Your task to perform on an android device: What's on my calendar today? Image 0: 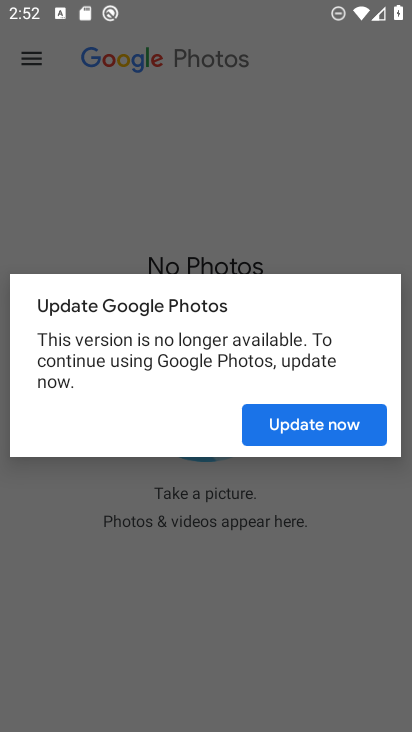
Step 0: press home button
Your task to perform on an android device: What's on my calendar today? Image 1: 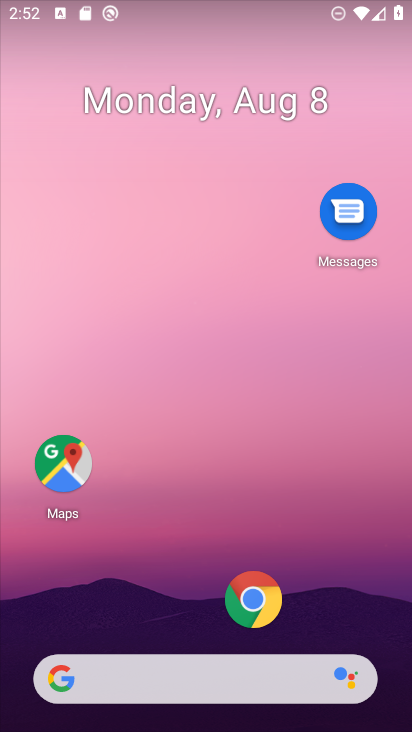
Step 1: drag from (109, 595) to (0, 101)
Your task to perform on an android device: What's on my calendar today? Image 2: 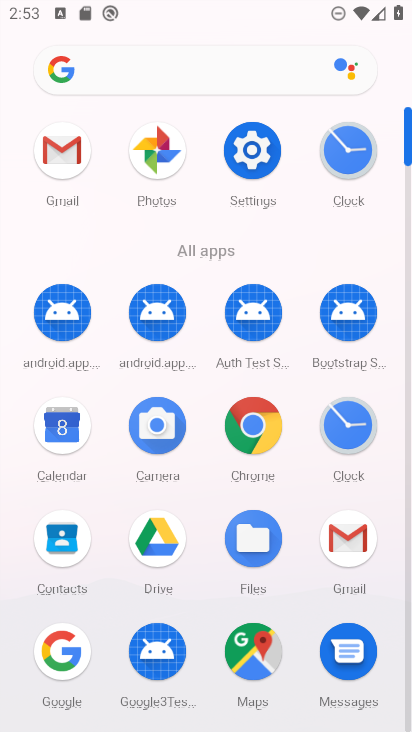
Step 2: click (68, 440)
Your task to perform on an android device: What's on my calendar today? Image 3: 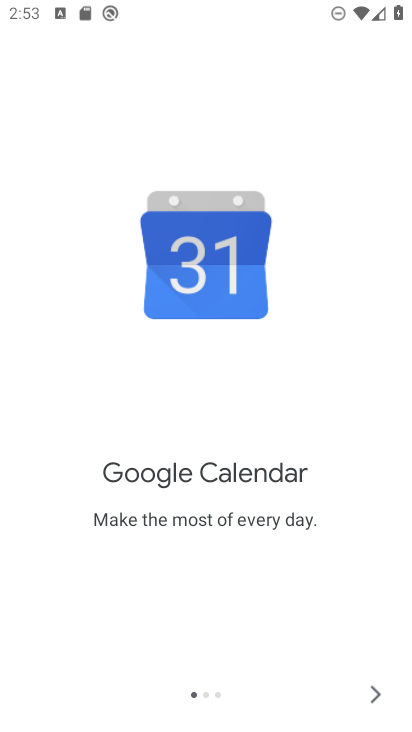
Step 3: click (375, 693)
Your task to perform on an android device: What's on my calendar today? Image 4: 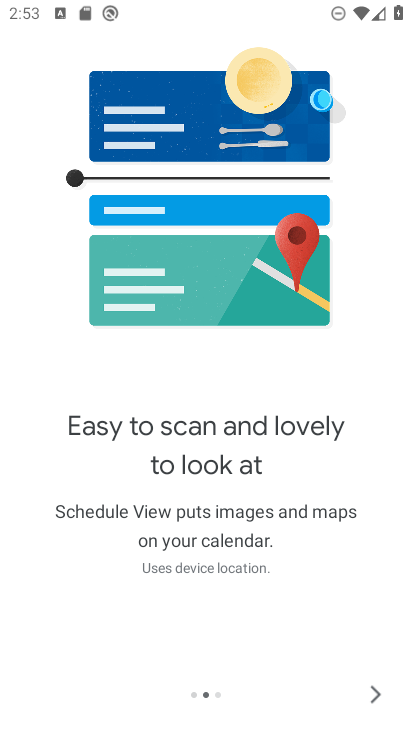
Step 4: click (375, 693)
Your task to perform on an android device: What's on my calendar today? Image 5: 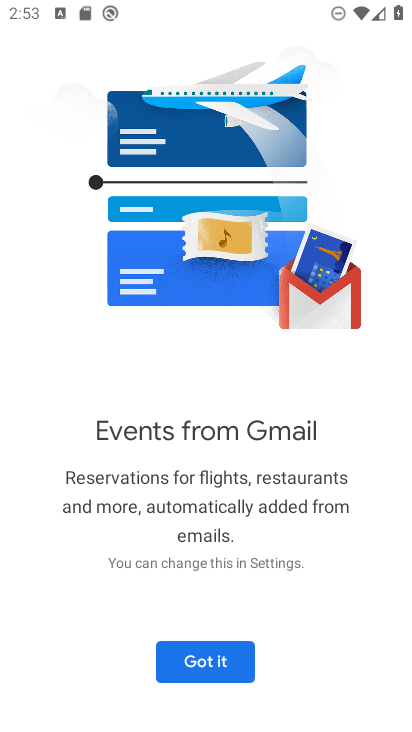
Step 5: click (375, 693)
Your task to perform on an android device: What's on my calendar today? Image 6: 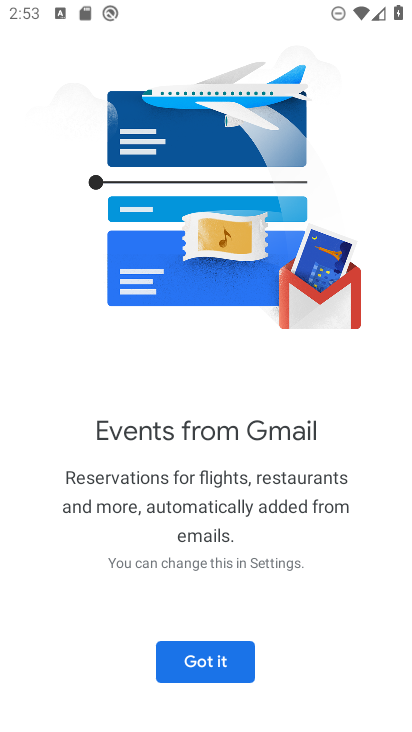
Step 6: click (228, 670)
Your task to perform on an android device: What's on my calendar today? Image 7: 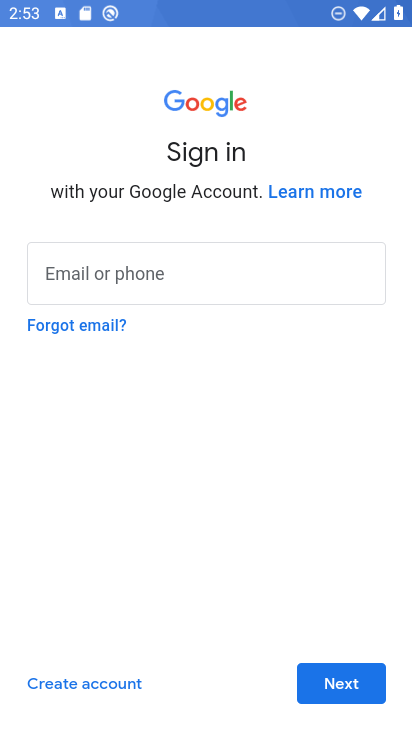
Step 7: click (337, 686)
Your task to perform on an android device: What's on my calendar today? Image 8: 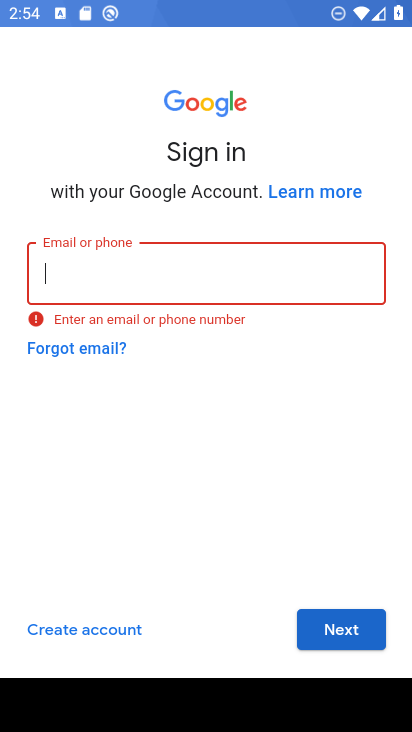
Step 8: task complete